Your task to perform on an android device: Do I have any events tomorrow? Image 0: 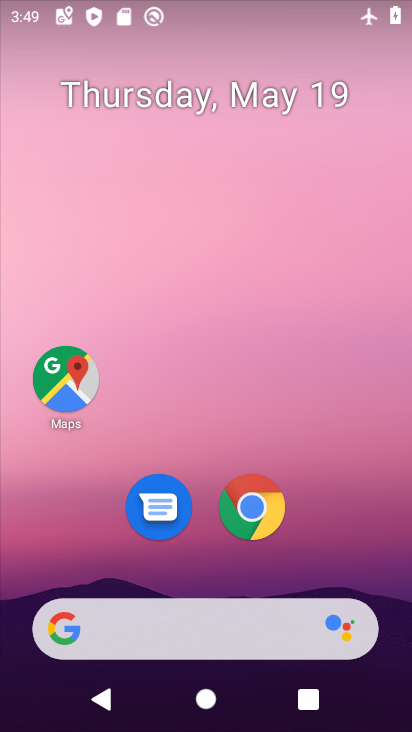
Step 0: drag from (396, 607) to (407, 170)
Your task to perform on an android device: Do I have any events tomorrow? Image 1: 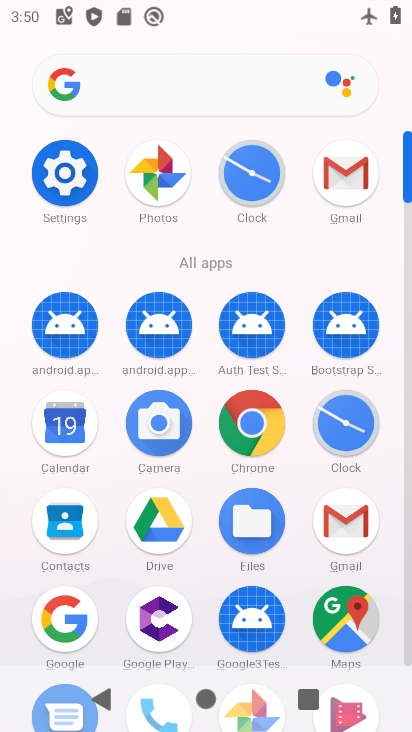
Step 1: click (60, 423)
Your task to perform on an android device: Do I have any events tomorrow? Image 2: 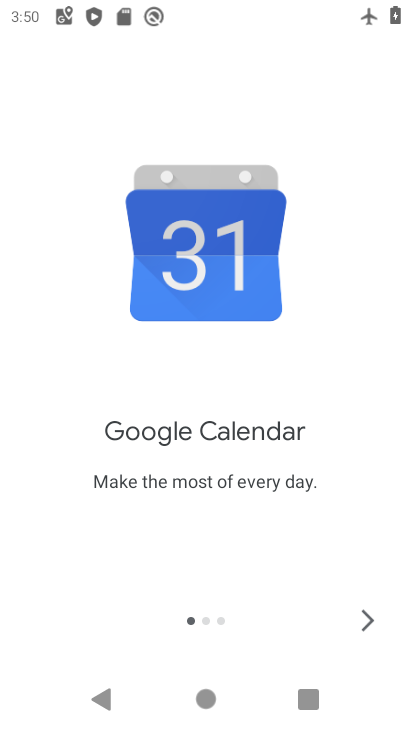
Step 2: click (375, 624)
Your task to perform on an android device: Do I have any events tomorrow? Image 3: 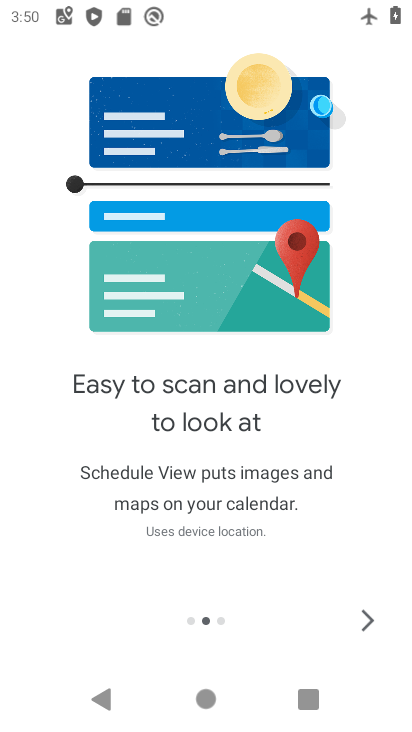
Step 3: click (373, 622)
Your task to perform on an android device: Do I have any events tomorrow? Image 4: 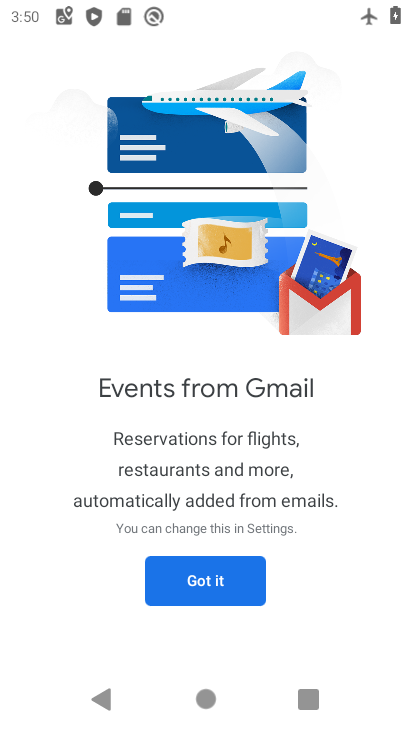
Step 4: click (248, 591)
Your task to perform on an android device: Do I have any events tomorrow? Image 5: 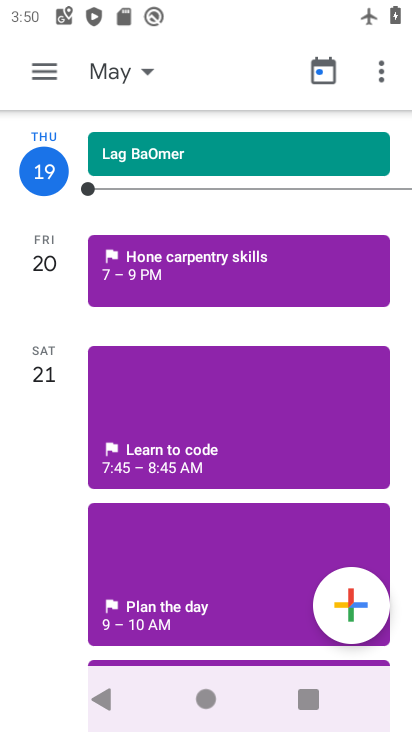
Step 5: click (145, 69)
Your task to perform on an android device: Do I have any events tomorrow? Image 6: 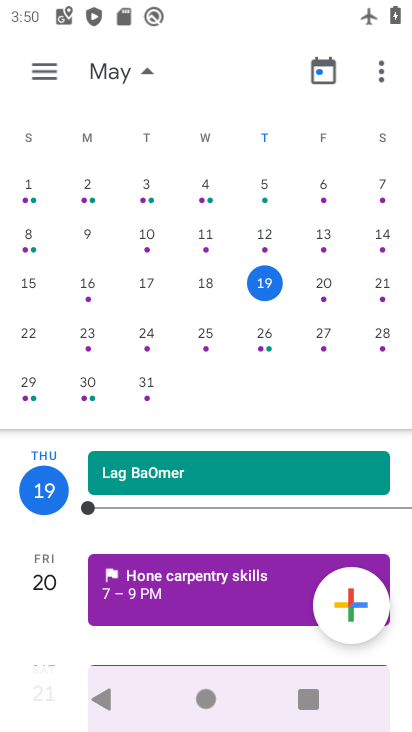
Step 6: click (325, 276)
Your task to perform on an android device: Do I have any events tomorrow? Image 7: 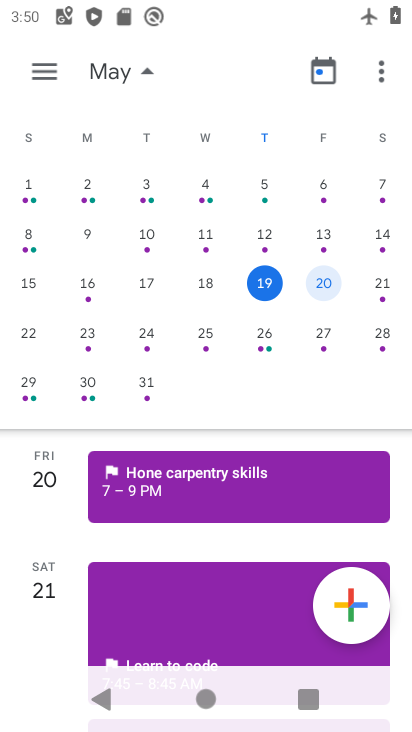
Step 7: task complete